Your task to perform on an android device: Open Reddit.com Image 0: 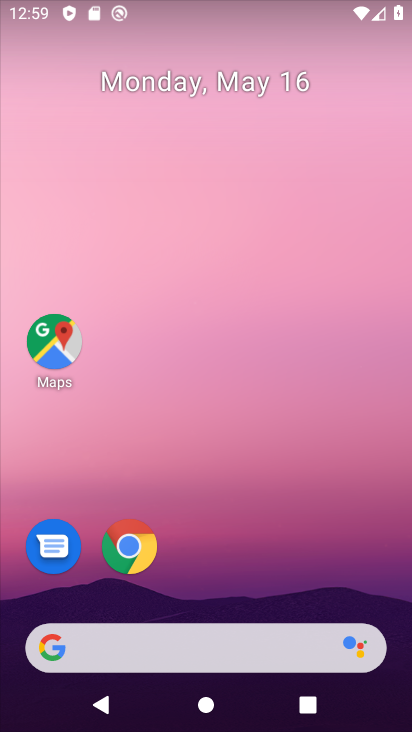
Step 0: click (123, 538)
Your task to perform on an android device: Open Reddit.com Image 1: 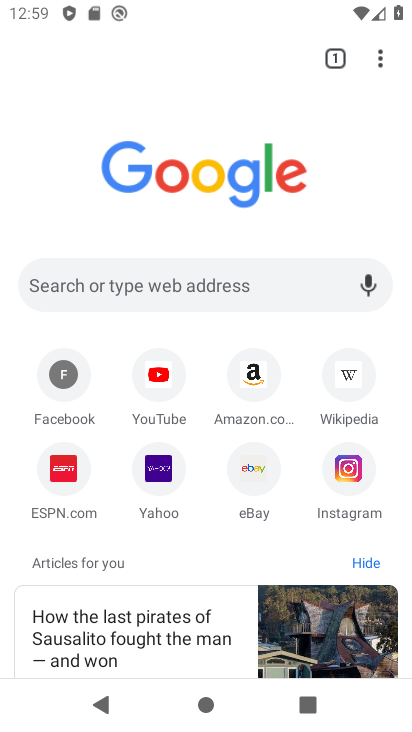
Step 1: click (117, 285)
Your task to perform on an android device: Open Reddit.com Image 2: 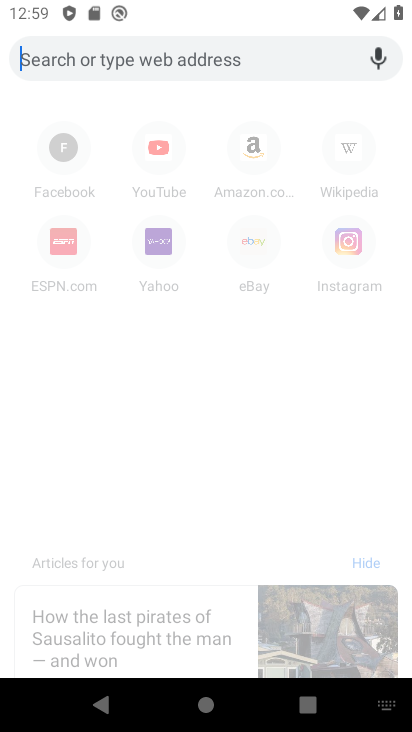
Step 2: type "Reddit.com"
Your task to perform on an android device: Open Reddit.com Image 3: 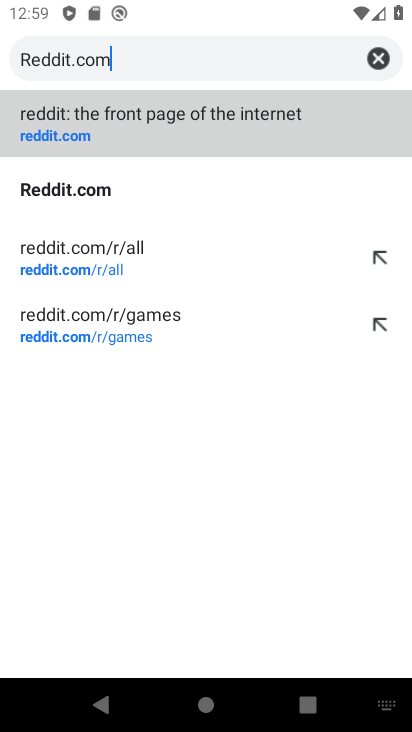
Step 3: click (90, 186)
Your task to perform on an android device: Open Reddit.com Image 4: 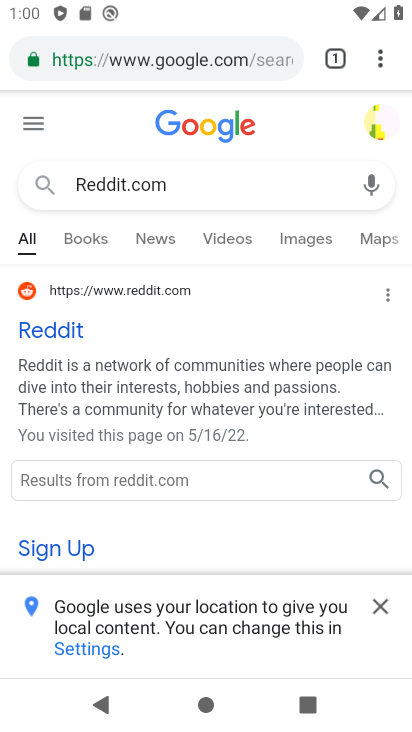
Step 4: task complete